Your task to perform on an android device: turn on priority inbox in the gmail app Image 0: 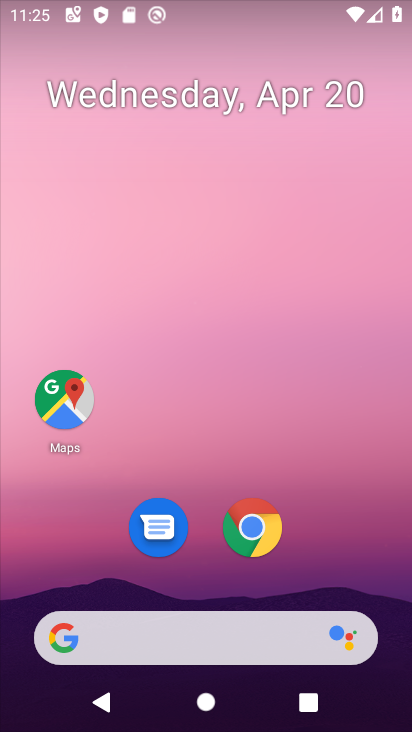
Step 0: drag from (312, 401) to (317, 8)
Your task to perform on an android device: turn on priority inbox in the gmail app Image 1: 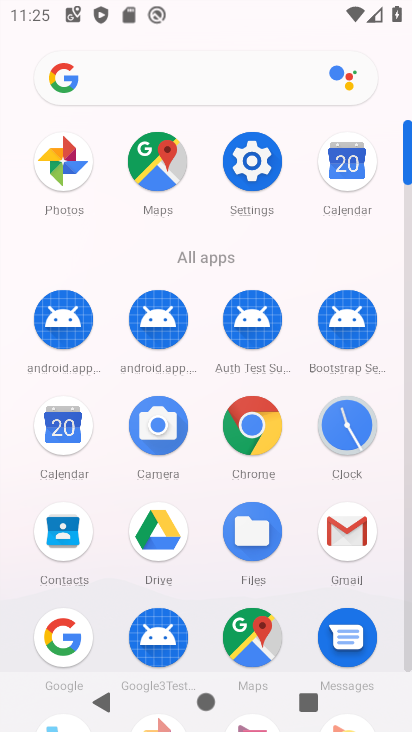
Step 1: click (352, 537)
Your task to perform on an android device: turn on priority inbox in the gmail app Image 2: 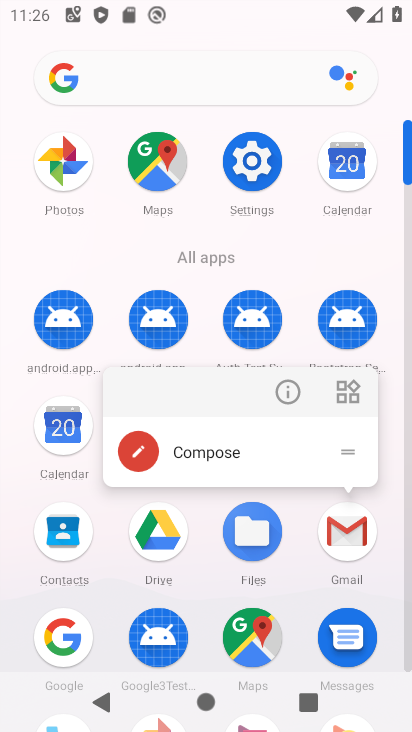
Step 2: click (358, 539)
Your task to perform on an android device: turn on priority inbox in the gmail app Image 3: 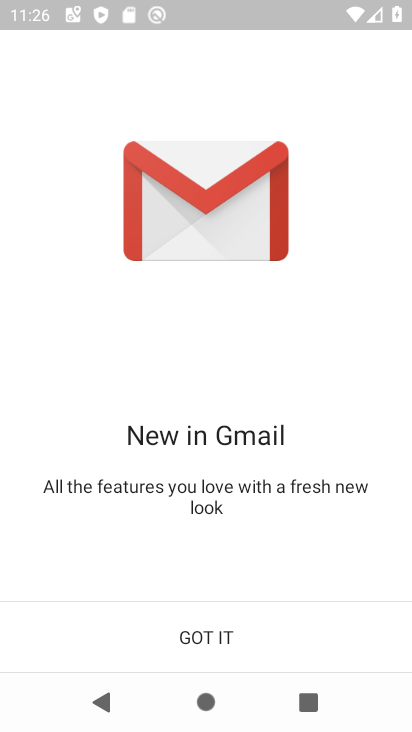
Step 3: click (266, 614)
Your task to perform on an android device: turn on priority inbox in the gmail app Image 4: 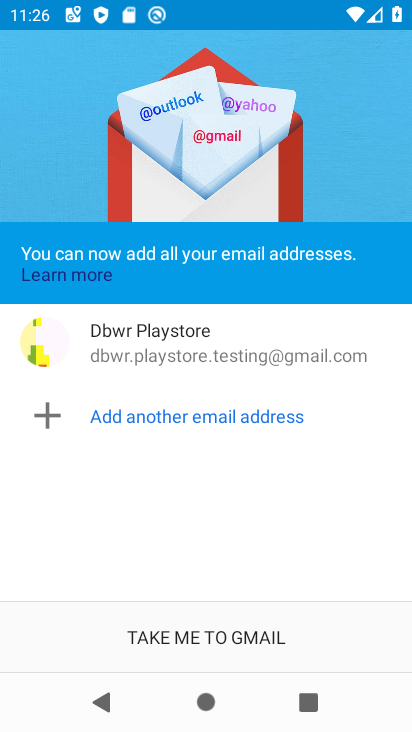
Step 4: click (231, 644)
Your task to perform on an android device: turn on priority inbox in the gmail app Image 5: 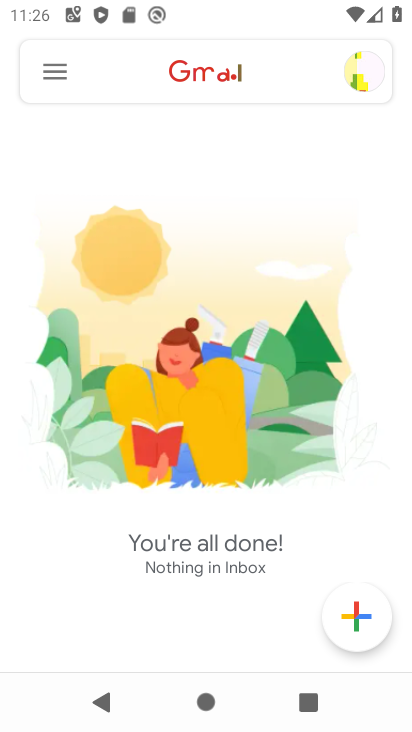
Step 5: click (57, 61)
Your task to perform on an android device: turn on priority inbox in the gmail app Image 6: 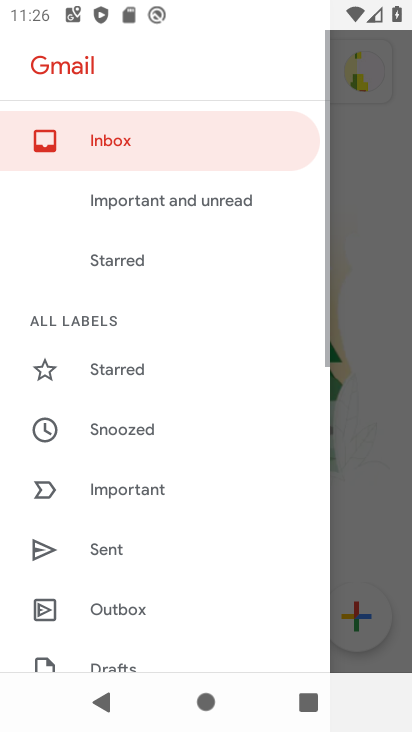
Step 6: drag from (167, 567) to (149, 118)
Your task to perform on an android device: turn on priority inbox in the gmail app Image 7: 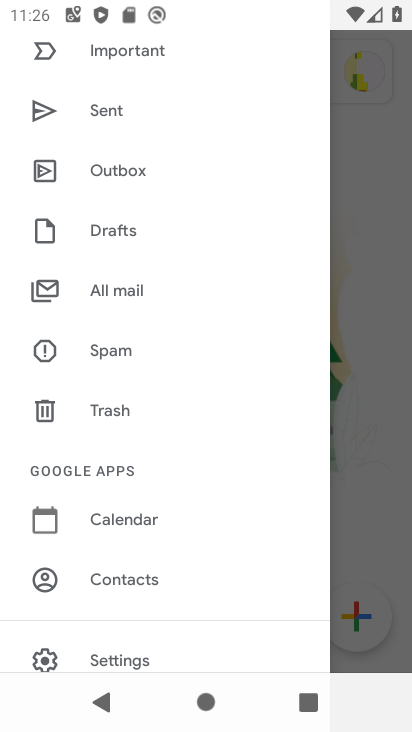
Step 7: click (127, 655)
Your task to perform on an android device: turn on priority inbox in the gmail app Image 8: 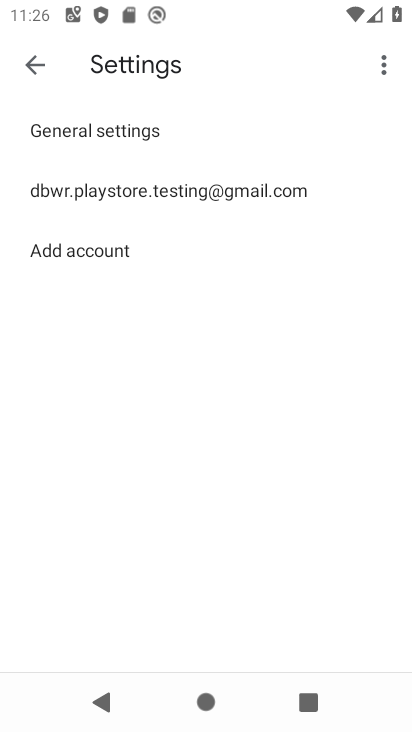
Step 8: click (135, 180)
Your task to perform on an android device: turn on priority inbox in the gmail app Image 9: 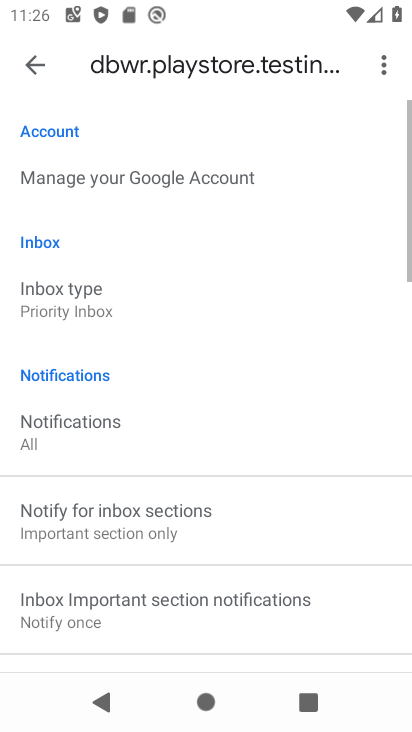
Step 9: click (99, 301)
Your task to perform on an android device: turn on priority inbox in the gmail app Image 10: 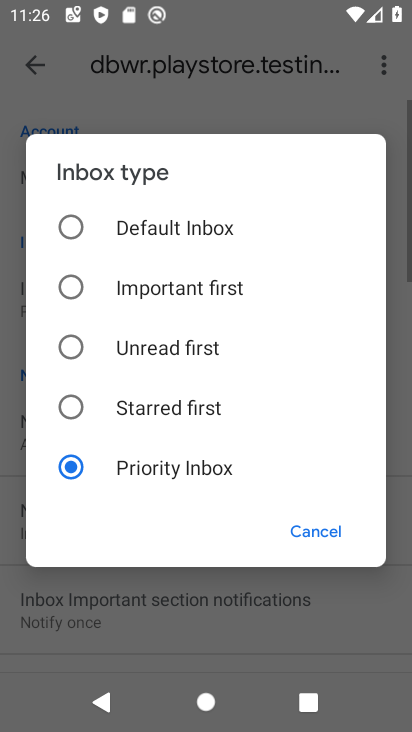
Step 10: task complete